Your task to perform on an android device: Open the stopwatch Image 0: 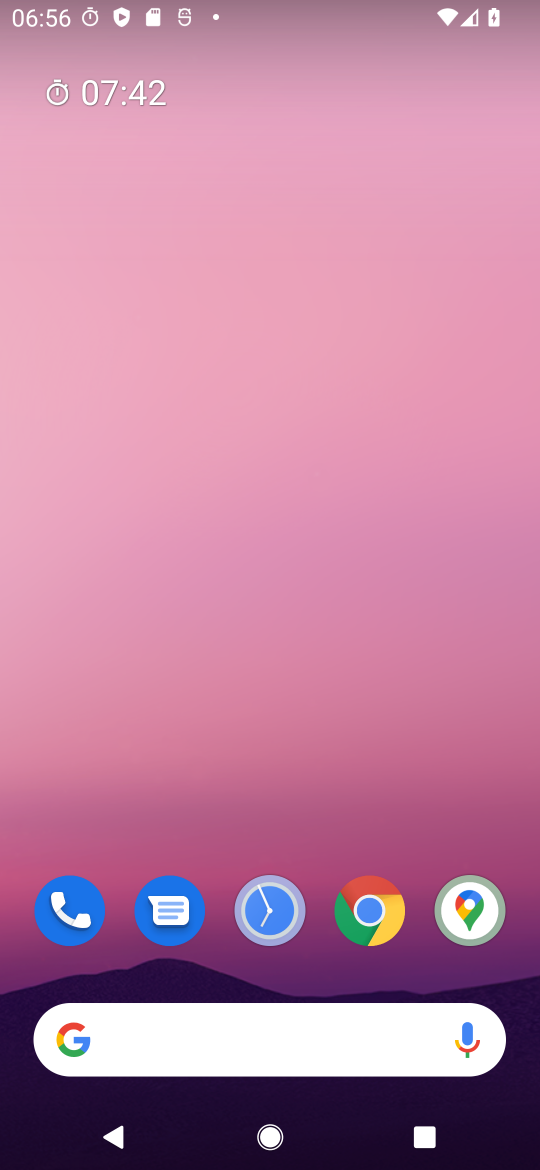
Step 0: drag from (347, 1021) to (403, 3)
Your task to perform on an android device: Open the stopwatch Image 1: 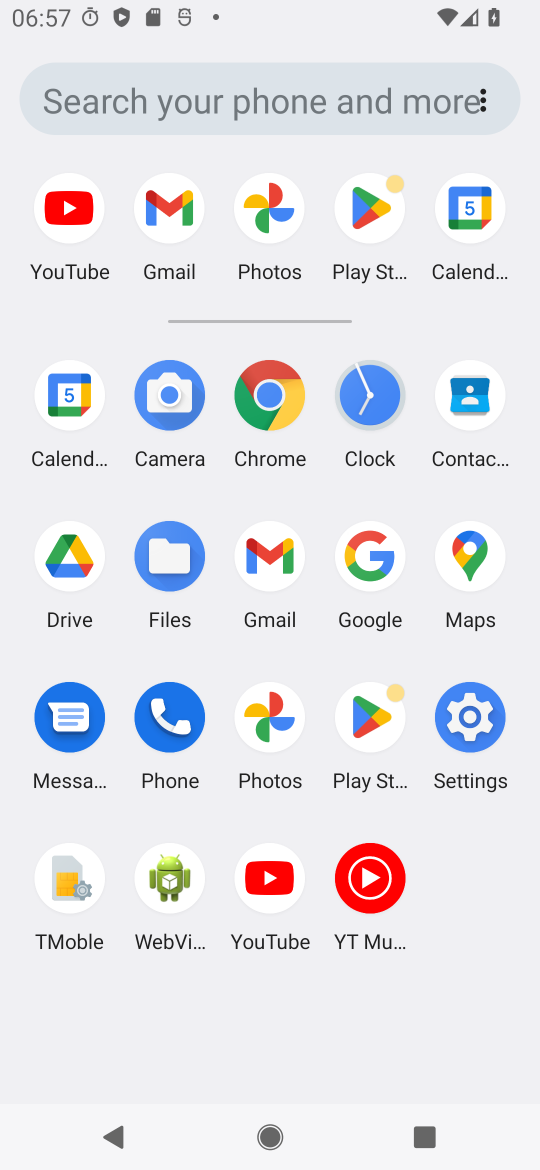
Step 1: click (383, 408)
Your task to perform on an android device: Open the stopwatch Image 2: 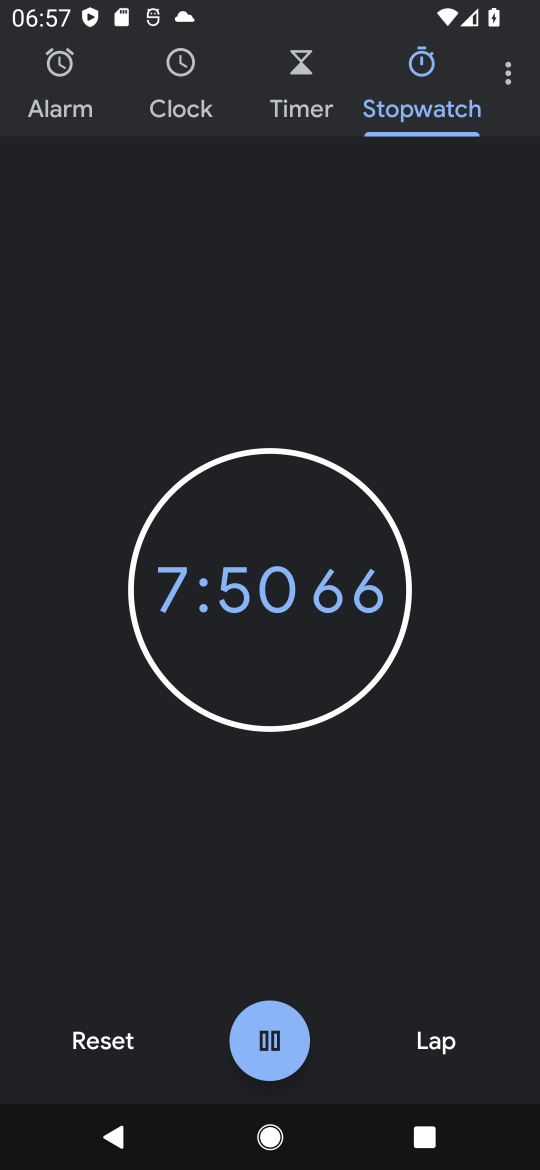
Step 2: task complete